Your task to perform on an android device: Go to Android settings Image 0: 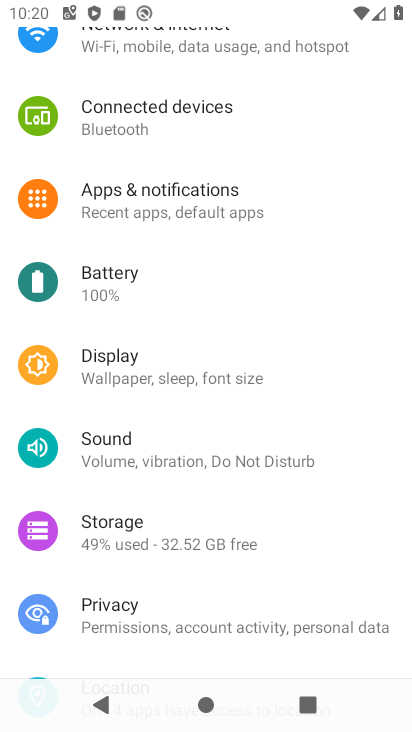
Step 0: press home button
Your task to perform on an android device: Go to Android settings Image 1: 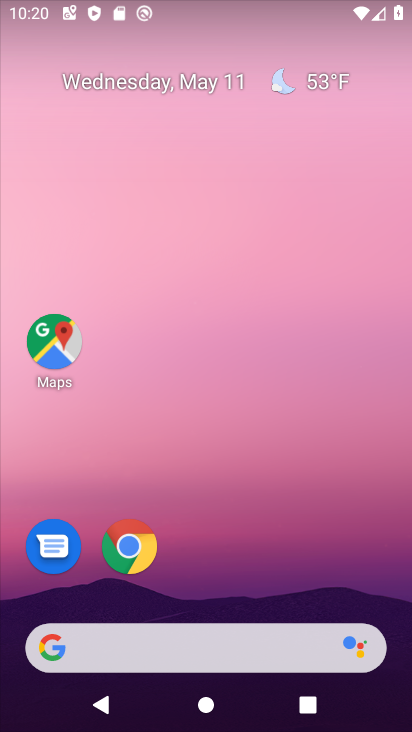
Step 1: drag from (391, 617) to (259, 19)
Your task to perform on an android device: Go to Android settings Image 2: 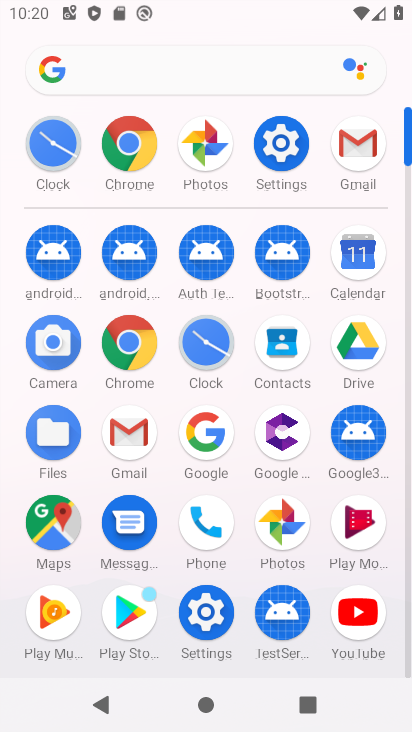
Step 2: click (209, 623)
Your task to perform on an android device: Go to Android settings Image 3: 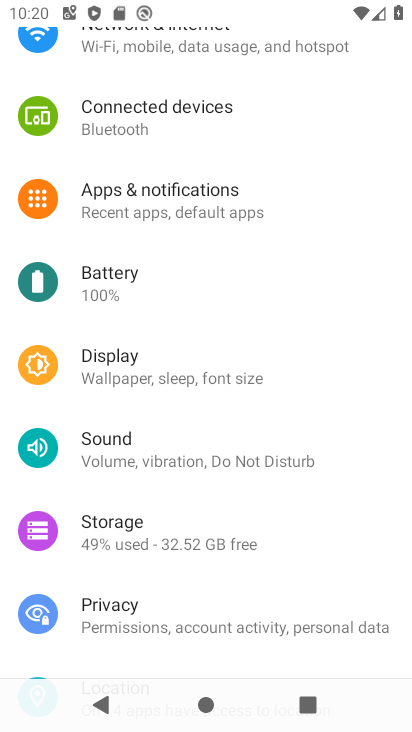
Step 3: drag from (170, 557) to (194, 174)
Your task to perform on an android device: Go to Android settings Image 4: 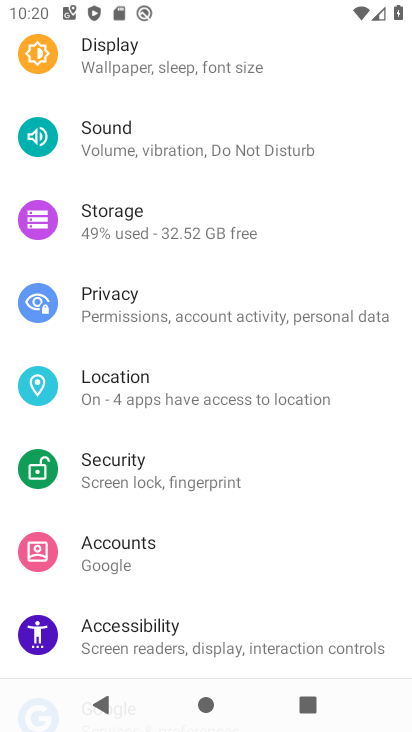
Step 4: drag from (180, 523) to (186, 102)
Your task to perform on an android device: Go to Android settings Image 5: 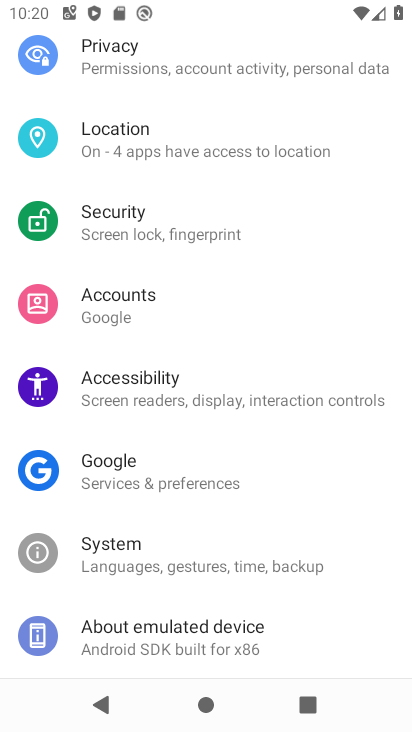
Step 5: click (119, 629)
Your task to perform on an android device: Go to Android settings Image 6: 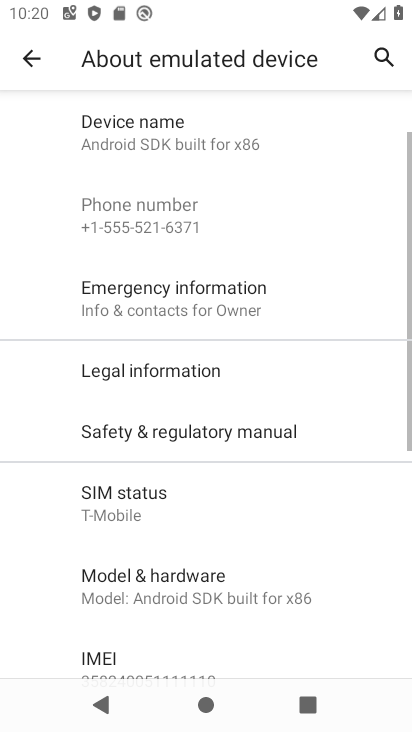
Step 6: drag from (166, 587) to (197, 257)
Your task to perform on an android device: Go to Android settings Image 7: 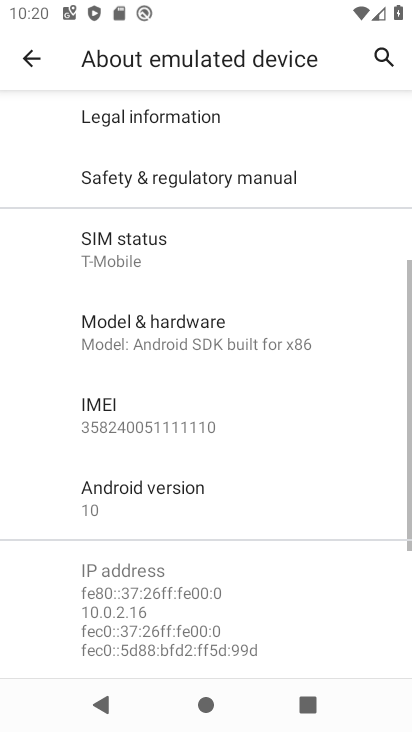
Step 7: click (187, 491)
Your task to perform on an android device: Go to Android settings Image 8: 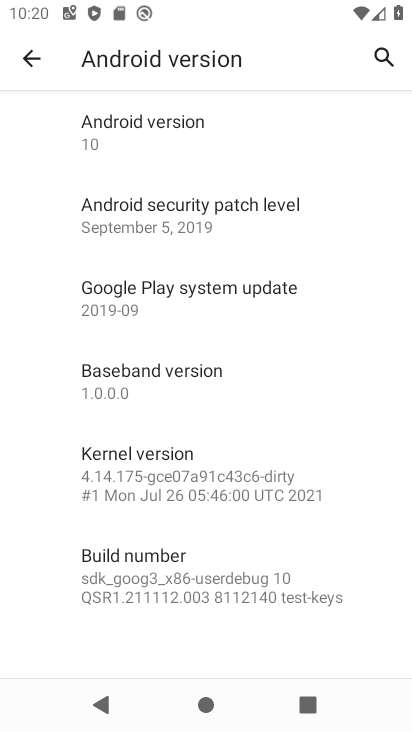
Step 8: task complete